Your task to perform on an android device: Search for vegetarian restaurants on Maps Image 0: 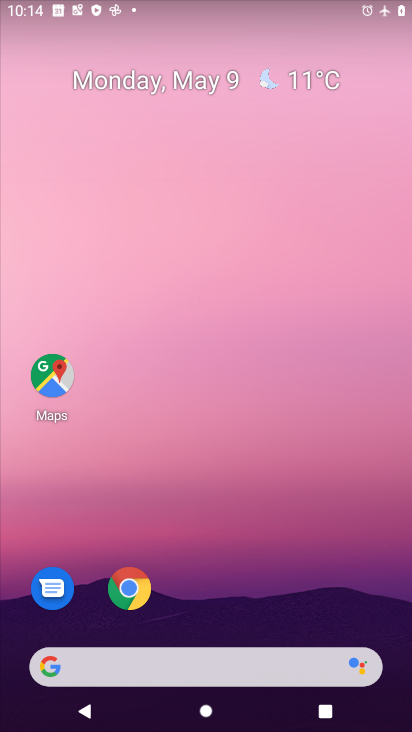
Step 0: drag from (327, 607) to (301, 50)
Your task to perform on an android device: Search for vegetarian restaurants on Maps Image 1: 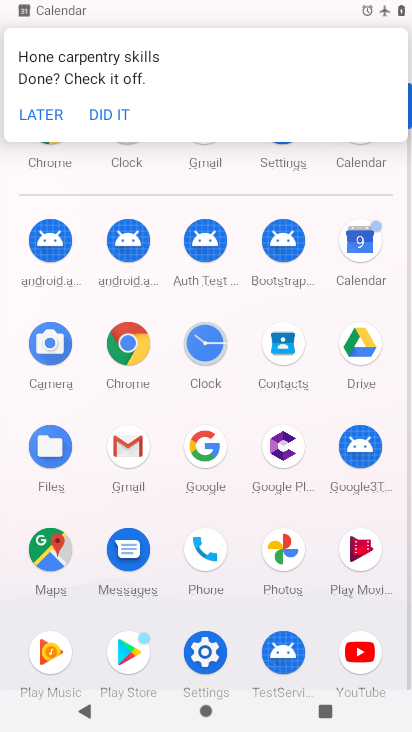
Step 1: click (53, 126)
Your task to perform on an android device: Search for vegetarian restaurants on Maps Image 2: 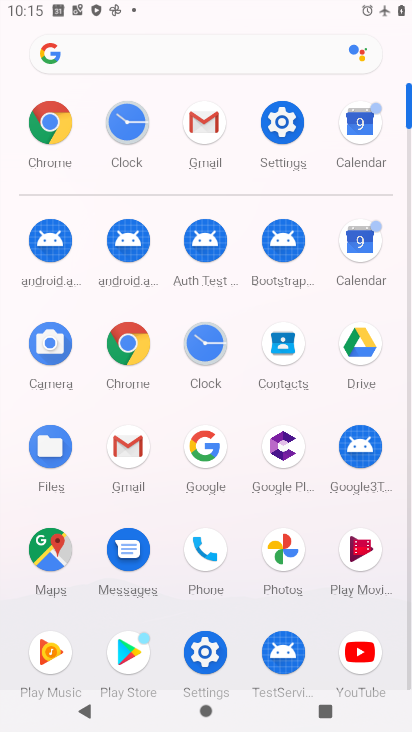
Step 2: click (52, 548)
Your task to perform on an android device: Search for vegetarian restaurants on Maps Image 3: 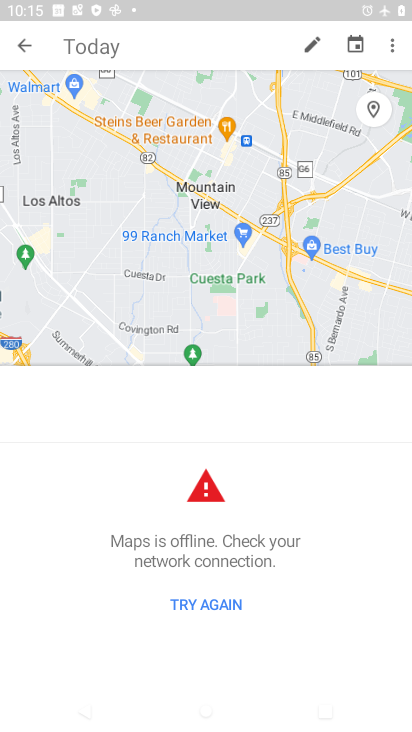
Step 3: press back button
Your task to perform on an android device: Search for vegetarian restaurants on Maps Image 4: 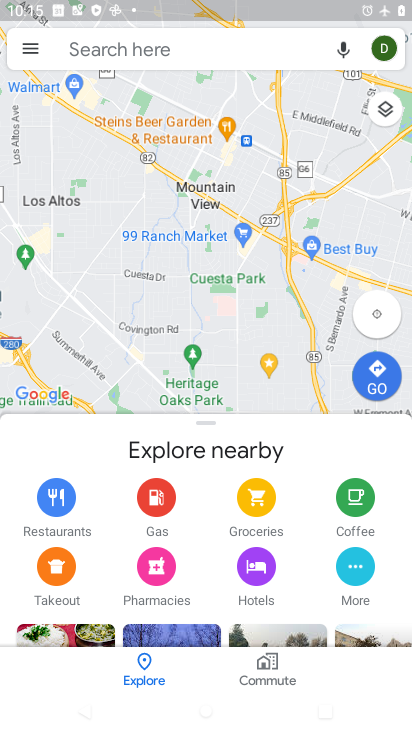
Step 4: click (178, 47)
Your task to perform on an android device: Search for vegetarian restaurants on Maps Image 5: 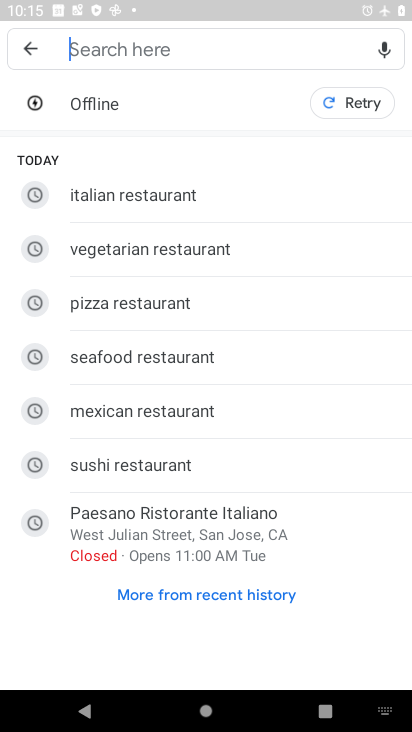
Step 5: click (198, 245)
Your task to perform on an android device: Search for vegetarian restaurants on Maps Image 6: 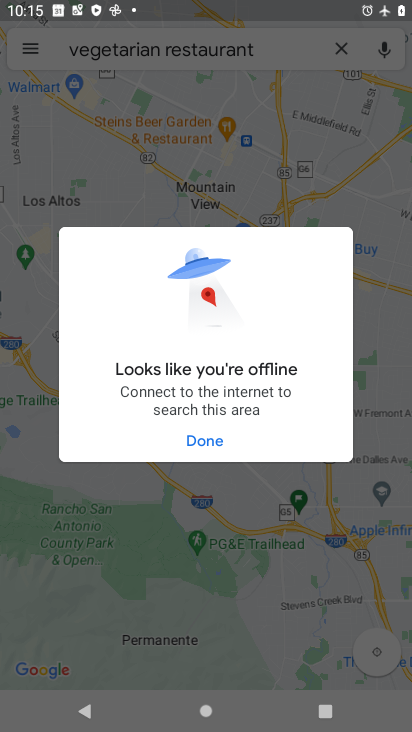
Step 6: task complete